Your task to perform on an android device: turn pop-ups on in chrome Image 0: 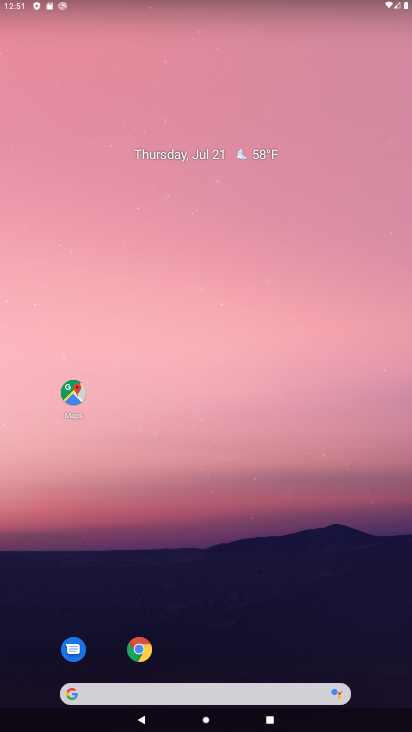
Step 0: click (131, 660)
Your task to perform on an android device: turn pop-ups on in chrome Image 1: 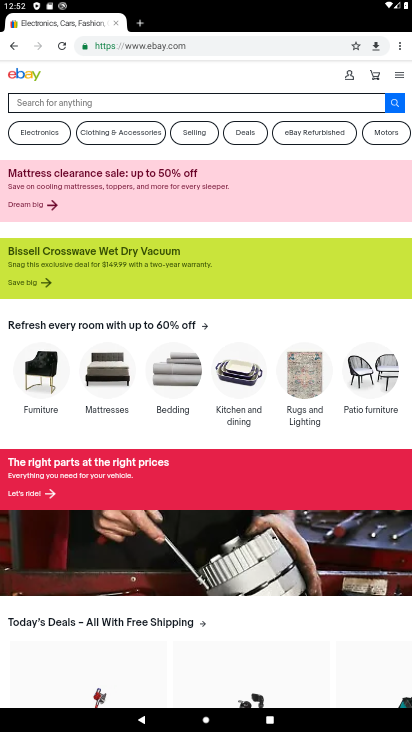
Step 1: click (406, 50)
Your task to perform on an android device: turn pop-ups on in chrome Image 2: 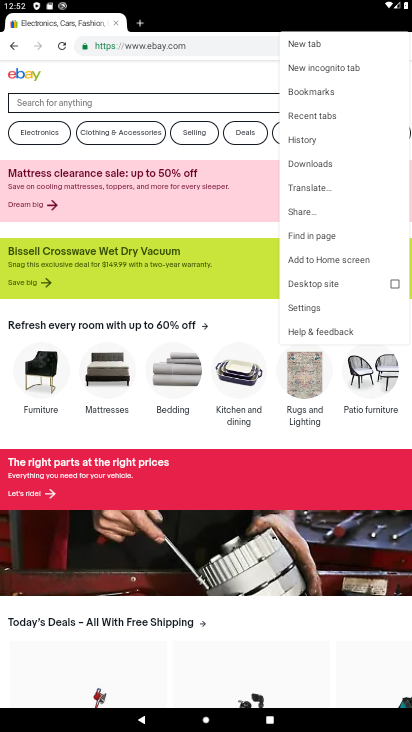
Step 2: task complete